Your task to perform on an android device: What is the recent news? Image 0: 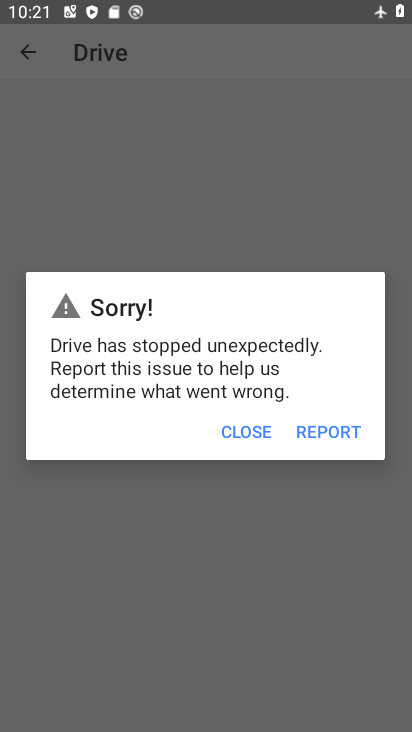
Step 0: press home button
Your task to perform on an android device: What is the recent news? Image 1: 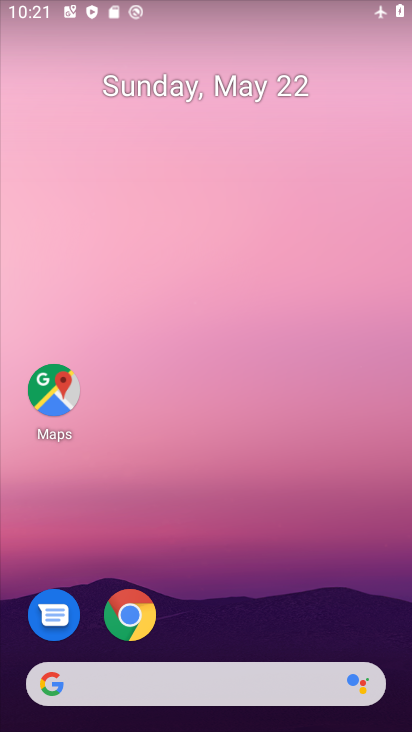
Step 1: drag from (259, 565) to (254, 1)
Your task to perform on an android device: What is the recent news? Image 2: 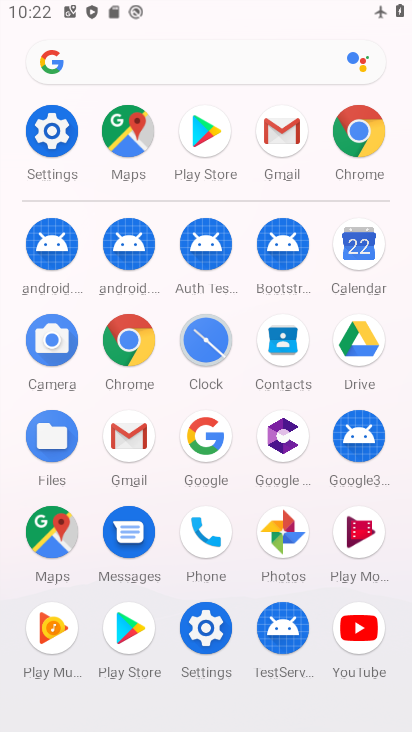
Step 2: click (136, 338)
Your task to perform on an android device: What is the recent news? Image 3: 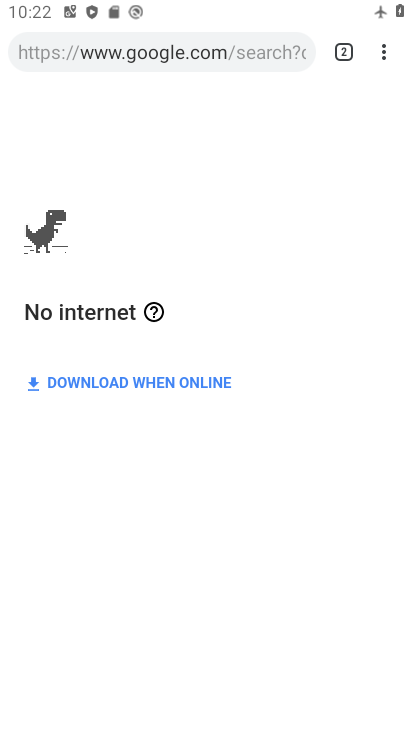
Step 3: click (181, 45)
Your task to perform on an android device: What is the recent news? Image 4: 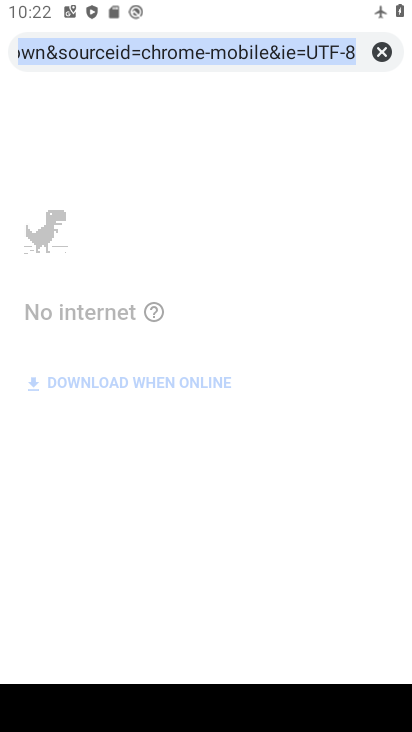
Step 4: type "news"
Your task to perform on an android device: What is the recent news? Image 5: 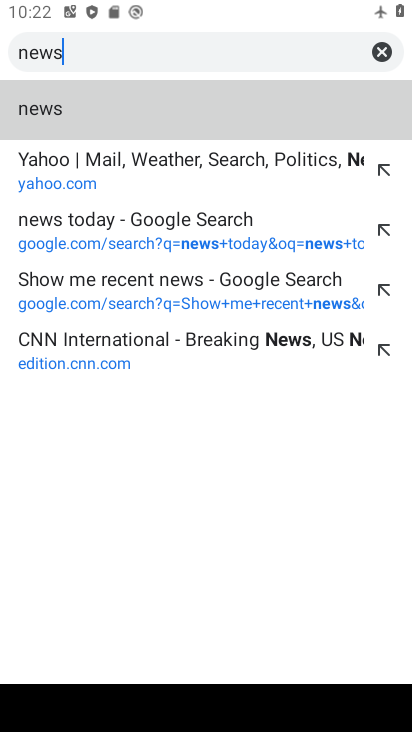
Step 5: click (77, 105)
Your task to perform on an android device: What is the recent news? Image 6: 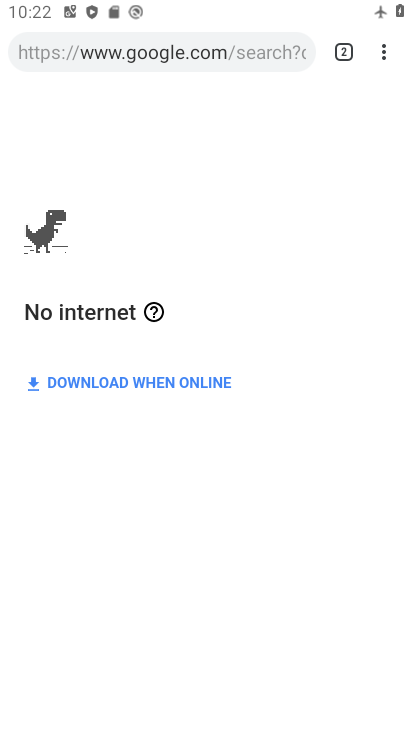
Step 6: task complete